Your task to perform on an android device: toggle translation in the chrome app Image 0: 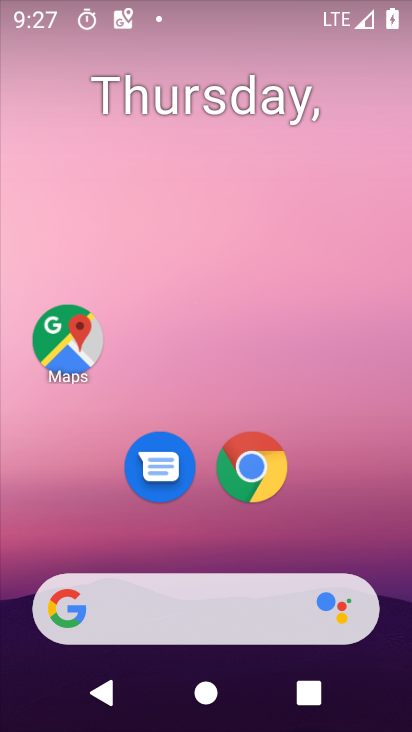
Step 0: click (265, 470)
Your task to perform on an android device: toggle translation in the chrome app Image 1: 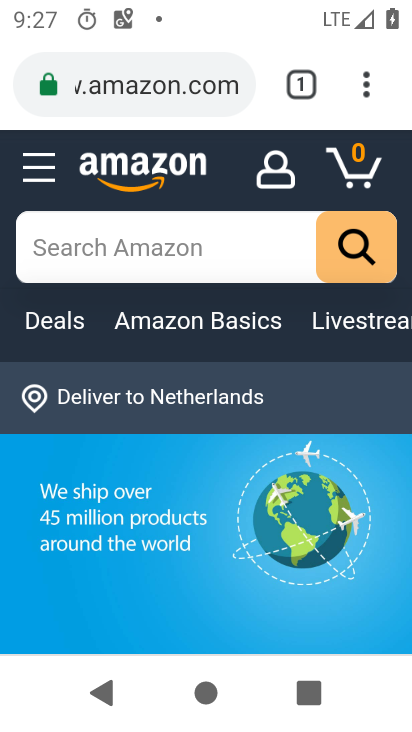
Step 1: click (376, 65)
Your task to perform on an android device: toggle translation in the chrome app Image 2: 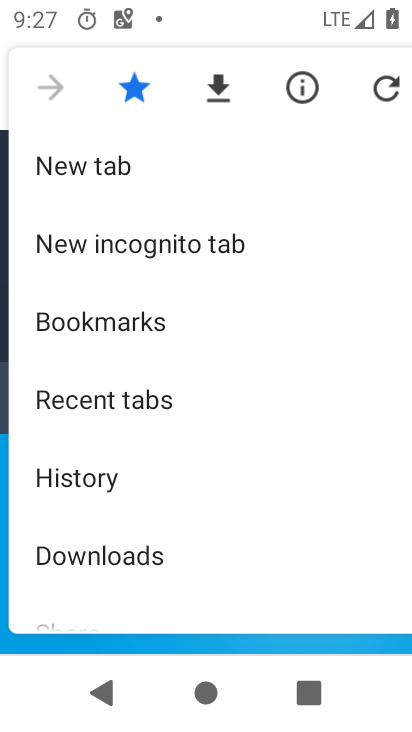
Step 2: drag from (201, 520) to (164, 134)
Your task to perform on an android device: toggle translation in the chrome app Image 3: 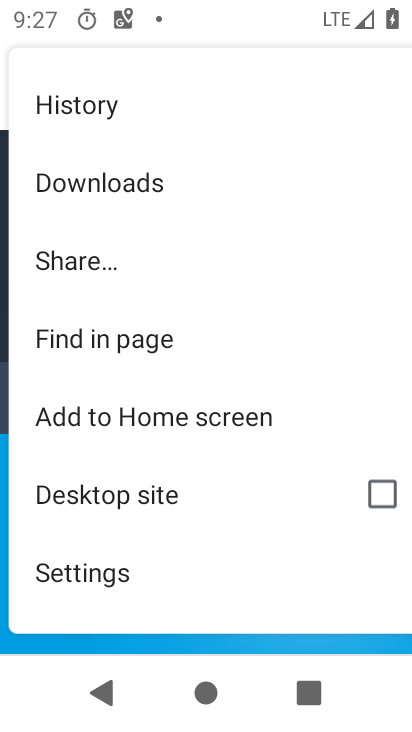
Step 3: drag from (136, 517) to (163, 689)
Your task to perform on an android device: toggle translation in the chrome app Image 4: 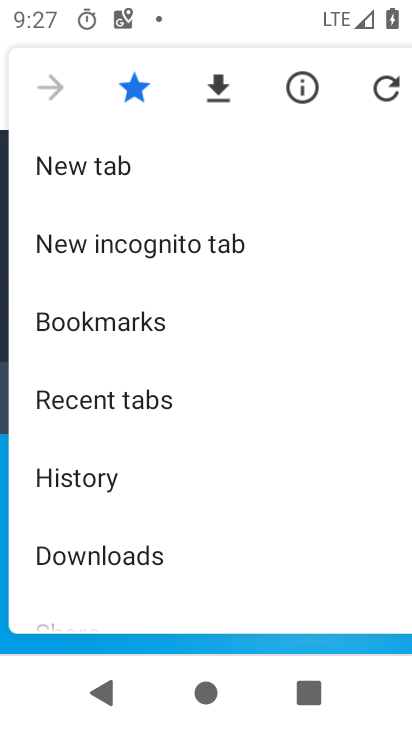
Step 4: drag from (159, 634) to (214, 160)
Your task to perform on an android device: toggle translation in the chrome app Image 5: 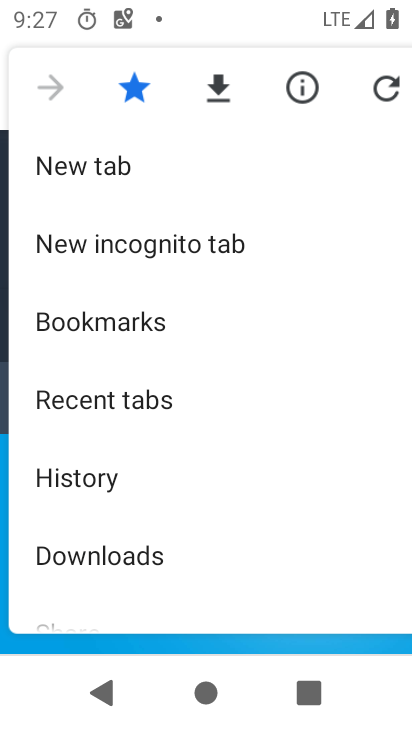
Step 5: drag from (180, 480) to (216, 162)
Your task to perform on an android device: toggle translation in the chrome app Image 6: 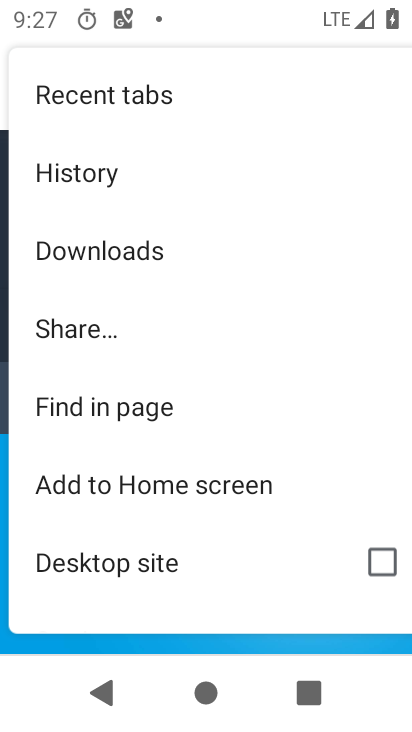
Step 6: drag from (143, 524) to (180, 147)
Your task to perform on an android device: toggle translation in the chrome app Image 7: 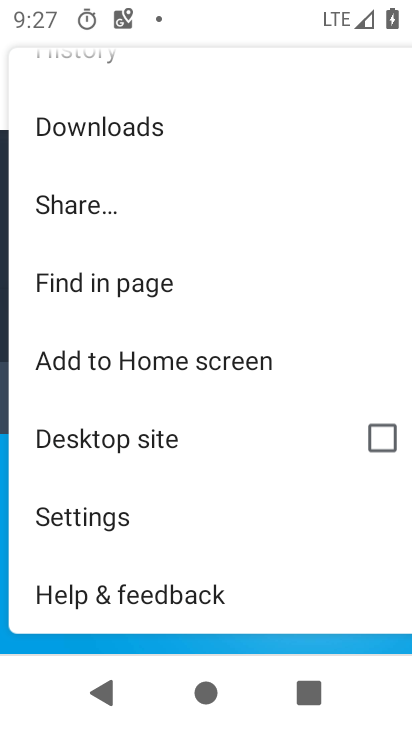
Step 7: click (86, 532)
Your task to perform on an android device: toggle translation in the chrome app Image 8: 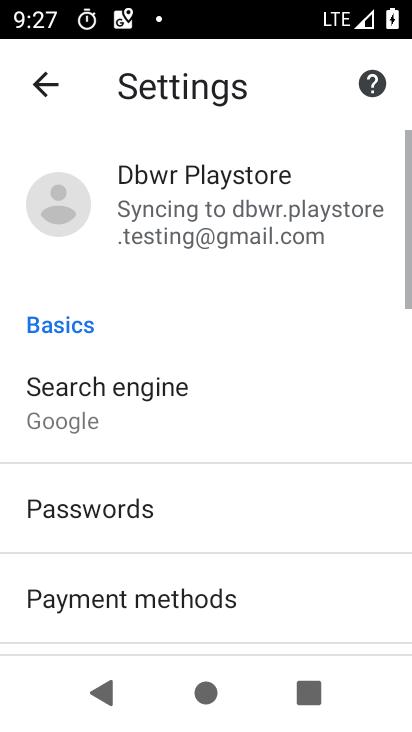
Step 8: drag from (283, 613) to (282, 196)
Your task to perform on an android device: toggle translation in the chrome app Image 9: 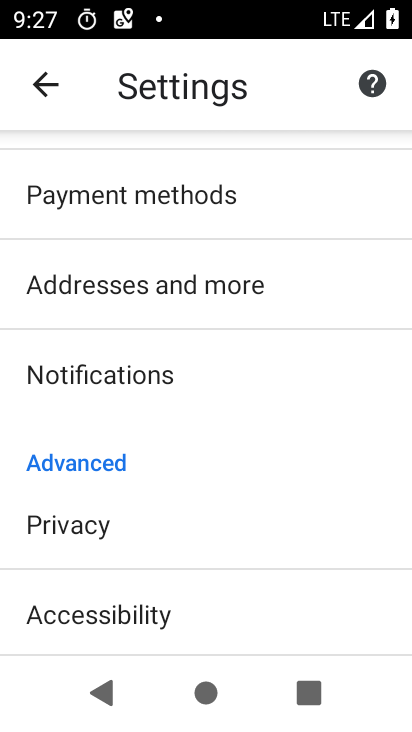
Step 9: drag from (211, 501) to (251, 176)
Your task to perform on an android device: toggle translation in the chrome app Image 10: 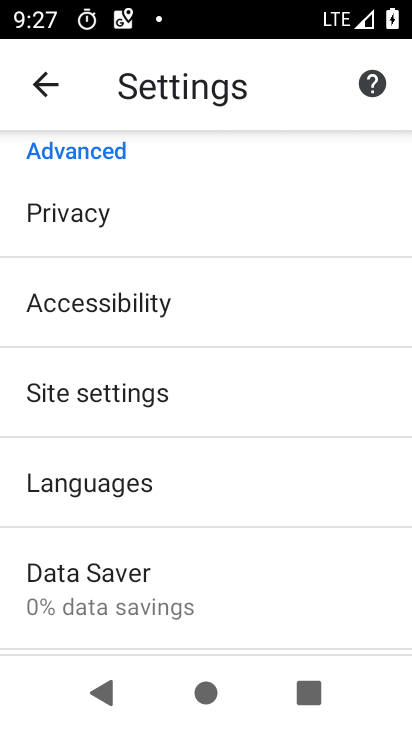
Step 10: click (116, 507)
Your task to perform on an android device: toggle translation in the chrome app Image 11: 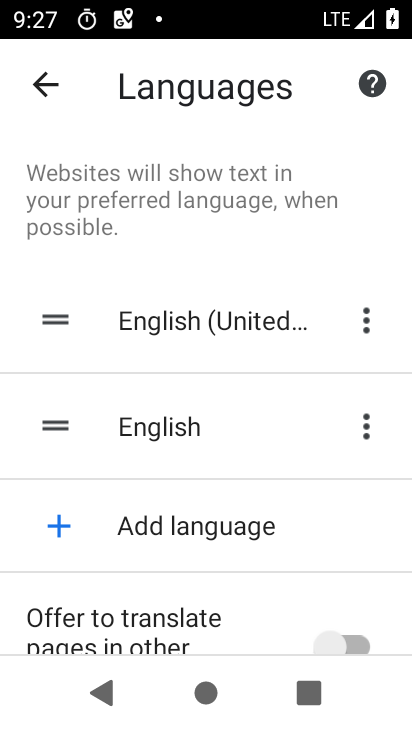
Step 11: click (331, 634)
Your task to perform on an android device: toggle translation in the chrome app Image 12: 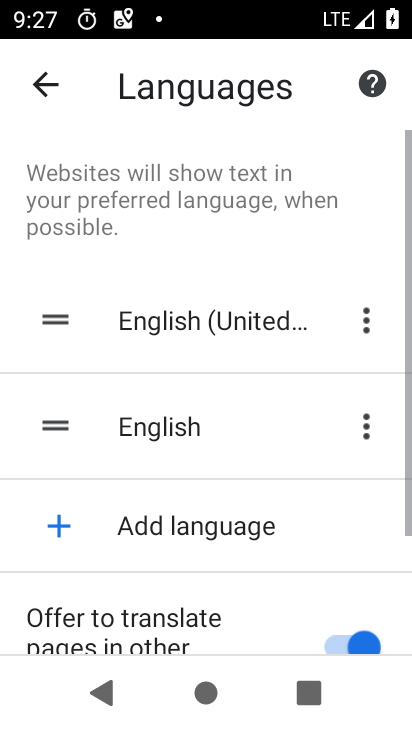
Step 12: task complete